Your task to perform on an android device: stop showing notifications on the lock screen Image 0: 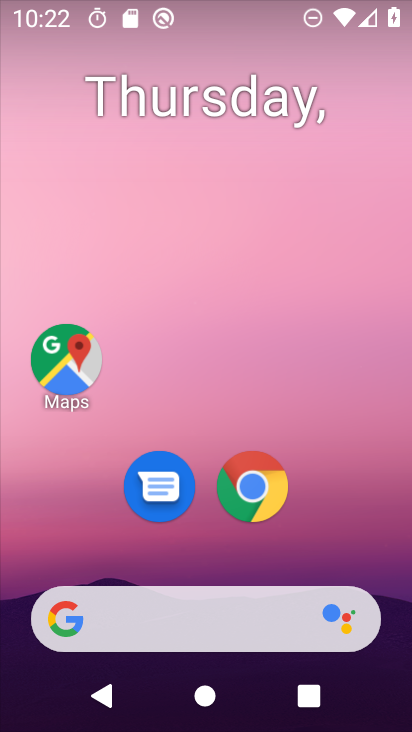
Step 0: drag from (198, 505) to (338, 9)
Your task to perform on an android device: stop showing notifications on the lock screen Image 1: 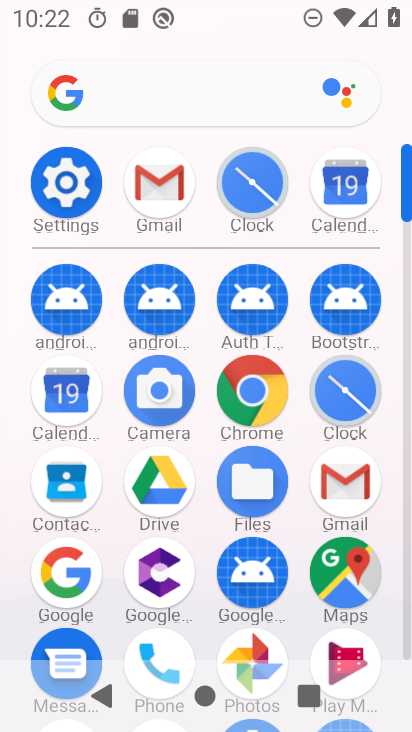
Step 1: click (82, 191)
Your task to perform on an android device: stop showing notifications on the lock screen Image 2: 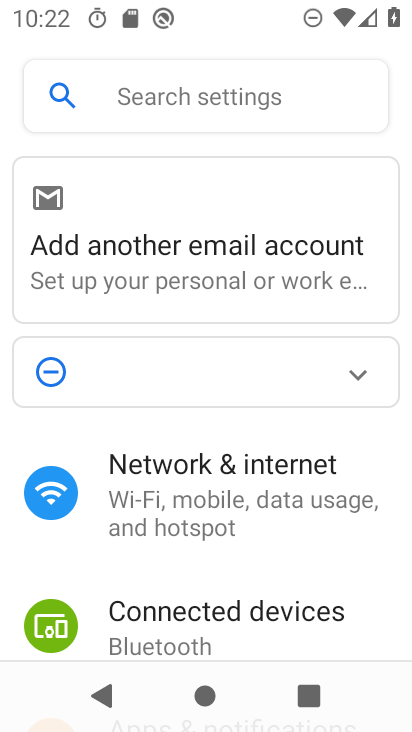
Step 2: drag from (241, 595) to (350, 153)
Your task to perform on an android device: stop showing notifications on the lock screen Image 3: 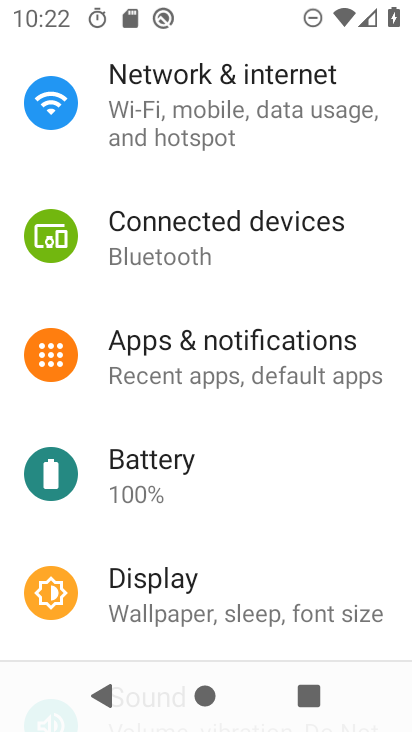
Step 3: click (208, 362)
Your task to perform on an android device: stop showing notifications on the lock screen Image 4: 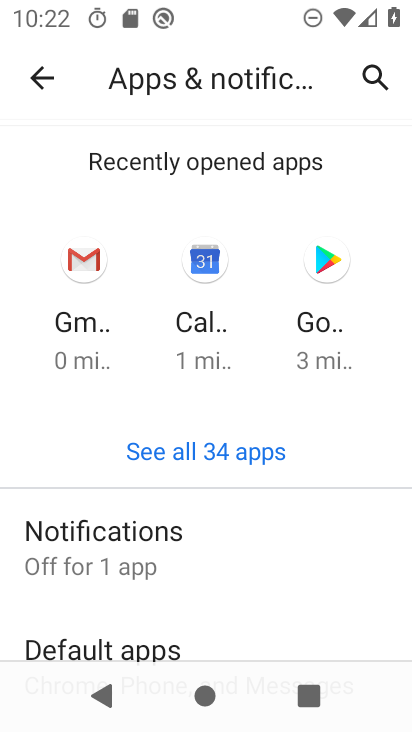
Step 4: drag from (165, 576) to (245, 207)
Your task to perform on an android device: stop showing notifications on the lock screen Image 5: 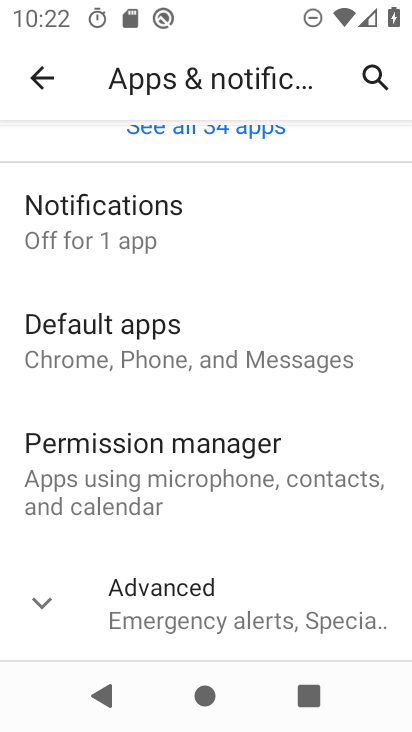
Step 5: click (130, 204)
Your task to perform on an android device: stop showing notifications on the lock screen Image 6: 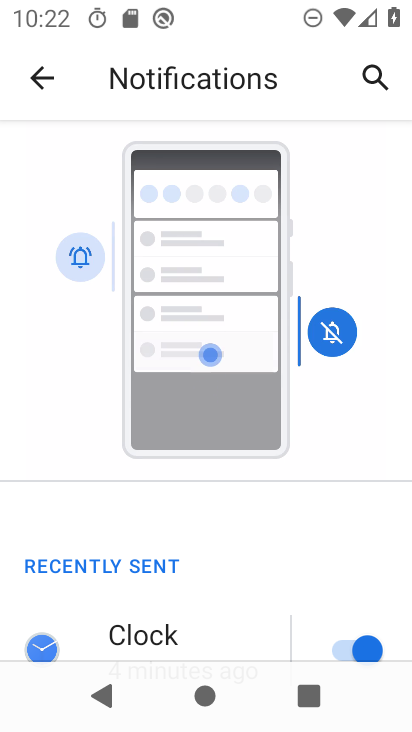
Step 6: drag from (144, 588) to (282, 77)
Your task to perform on an android device: stop showing notifications on the lock screen Image 7: 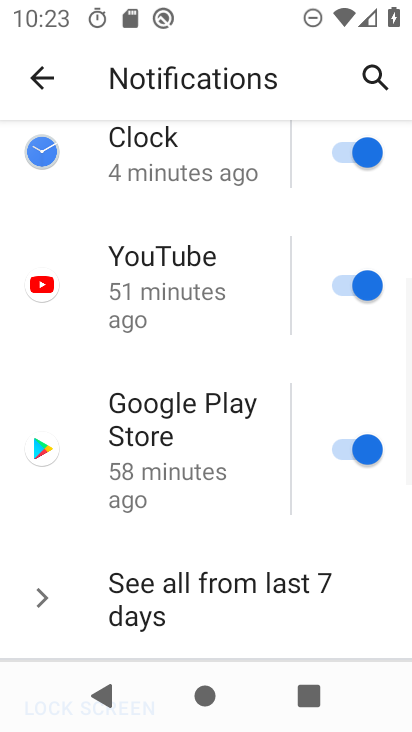
Step 7: drag from (164, 550) to (314, 29)
Your task to perform on an android device: stop showing notifications on the lock screen Image 8: 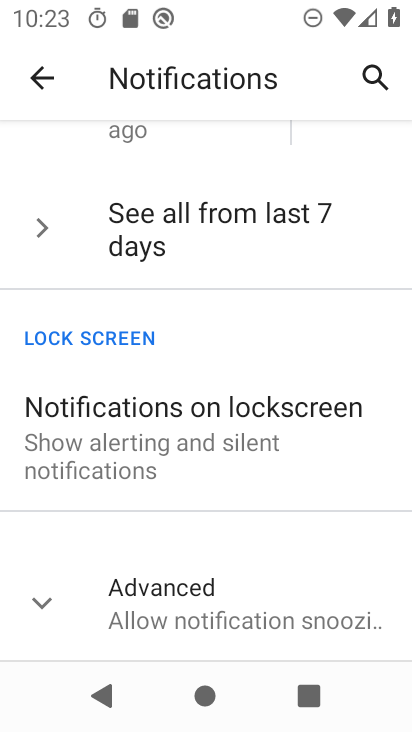
Step 8: click (199, 431)
Your task to perform on an android device: stop showing notifications on the lock screen Image 9: 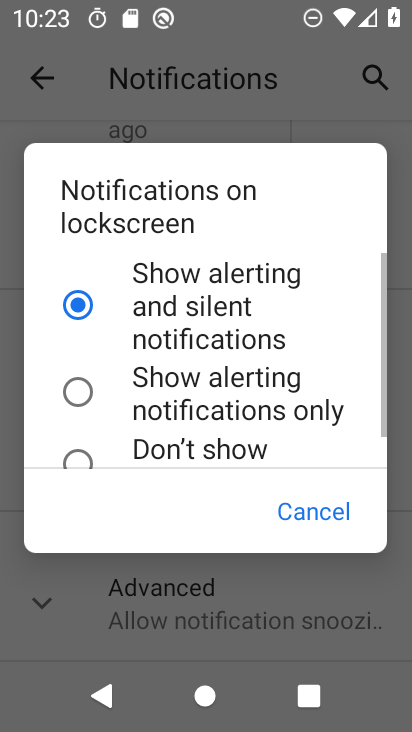
Step 9: click (77, 447)
Your task to perform on an android device: stop showing notifications on the lock screen Image 10: 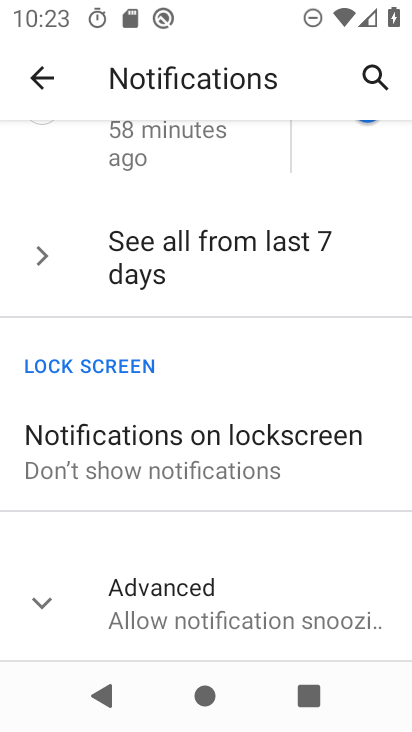
Step 10: task complete